Your task to perform on an android device: turn off airplane mode Image 0: 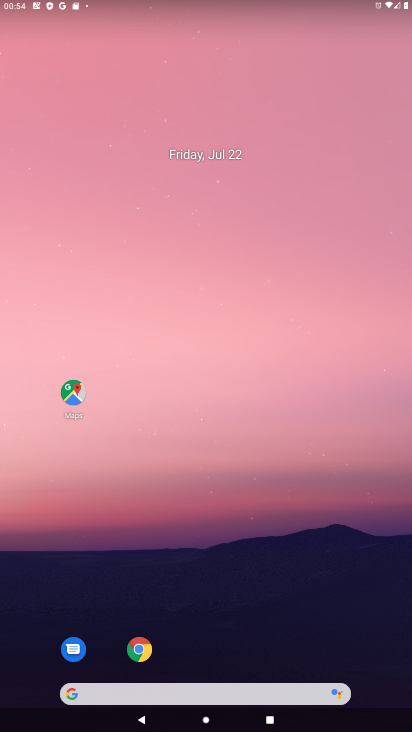
Step 0: drag from (236, 603) to (242, 2)
Your task to perform on an android device: turn off airplane mode Image 1: 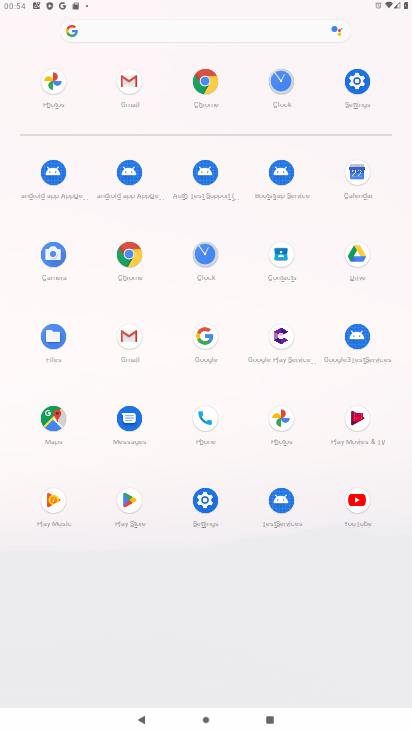
Step 1: click (361, 153)
Your task to perform on an android device: turn off airplane mode Image 2: 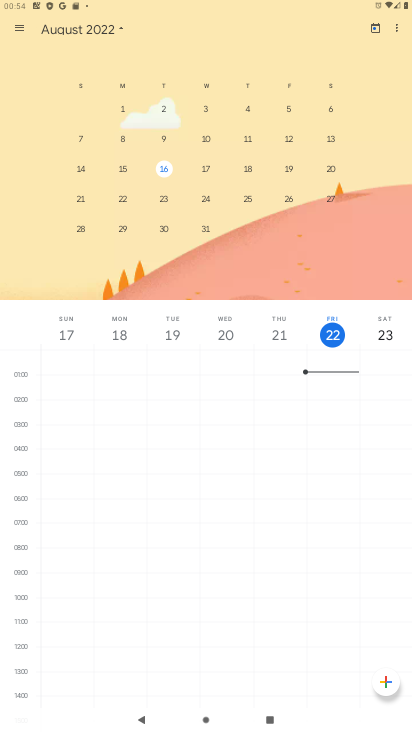
Step 2: press home button
Your task to perform on an android device: turn off airplane mode Image 3: 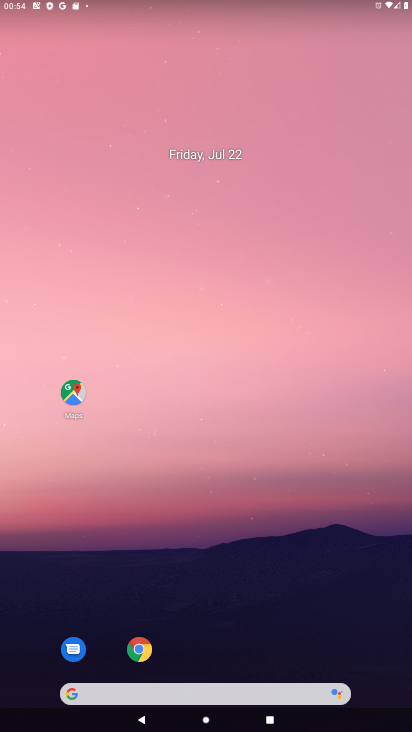
Step 3: drag from (260, 576) to (239, 0)
Your task to perform on an android device: turn off airplane mode Image 4: 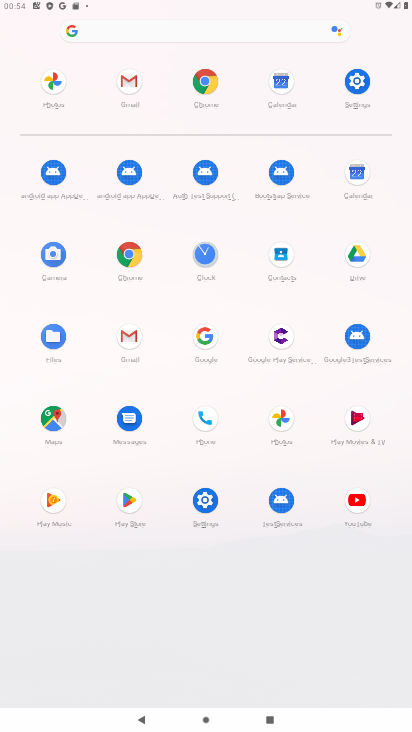
Step 4: click (362, 73)
Your task to perform on an android device: turn off airplane mode Image 5: 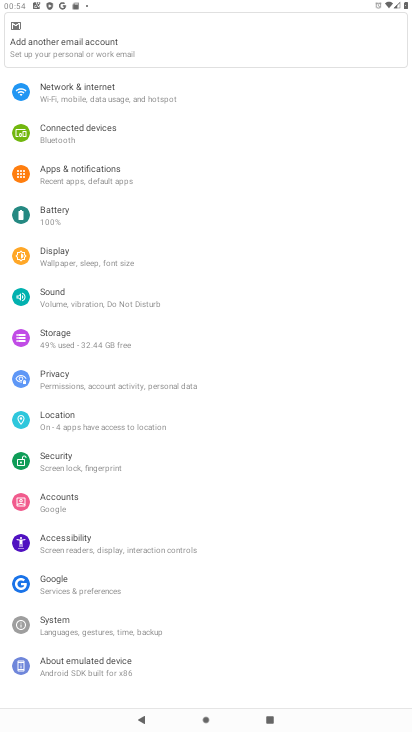
Step 5: click (82, 96)
Your task to perform on an android device: turn off airplane mode Image 6: 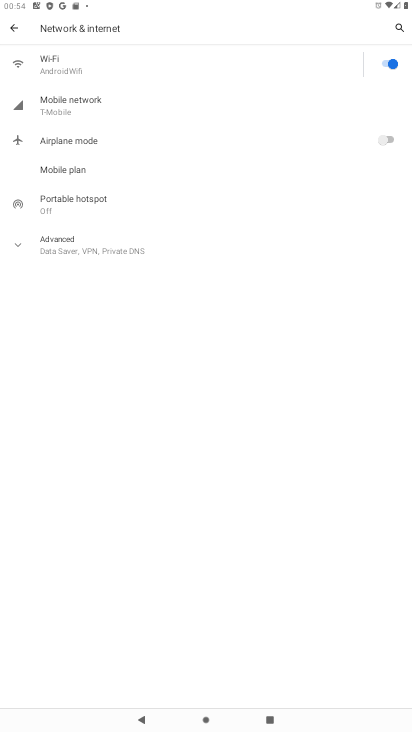
Step 6: task complete